Your task to perform on an android device: stop showing notifications on the lock screen Image 0: 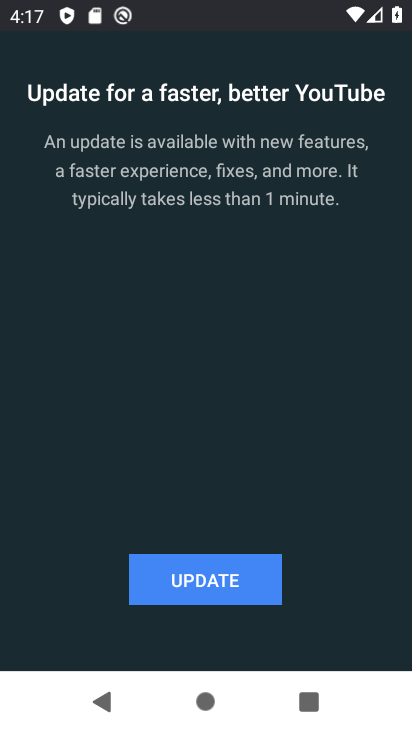
Step 0: press home button
Your task to perform on an android device: stop showing notifications on the lock screen Image 1: 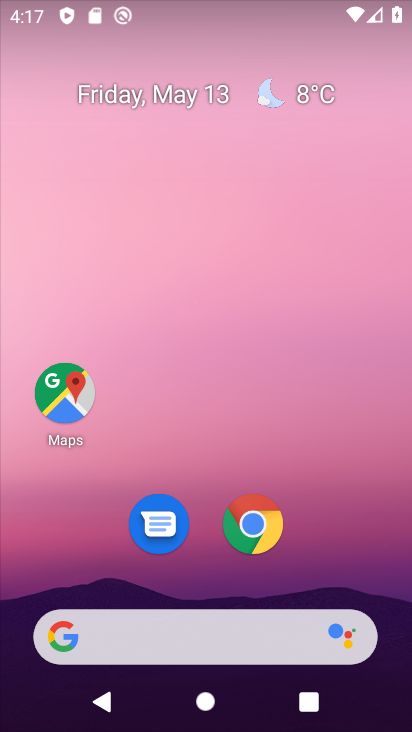
Step 1: drag from (291, 462) to (245, 9)
Your task to perform on an android device: stop showing notifications on the lock screen Image 2: 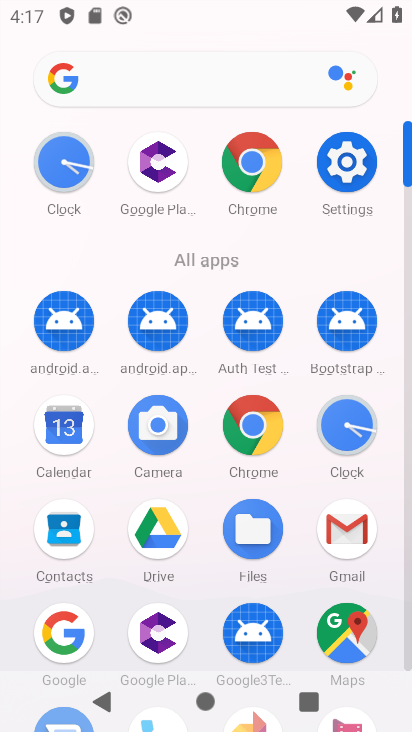
Step 2: click (343, 169)
Your task to perform on an android device: stop showing notifications on the lock screen Image 3: 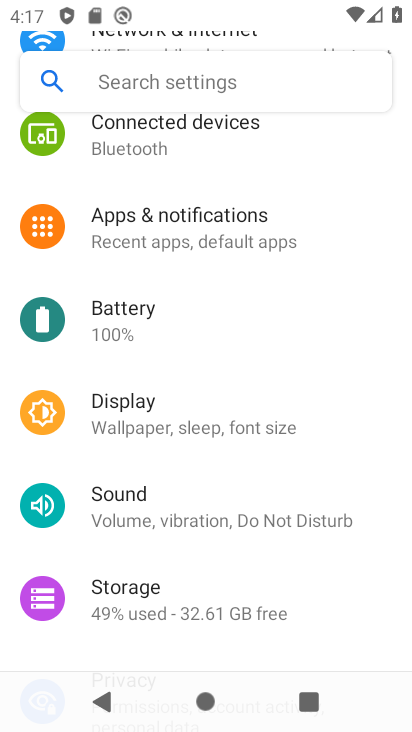
Step 3: click (235, 234)
Your task to perform on an android device: stop showing notifications on the lock screen Image 4: 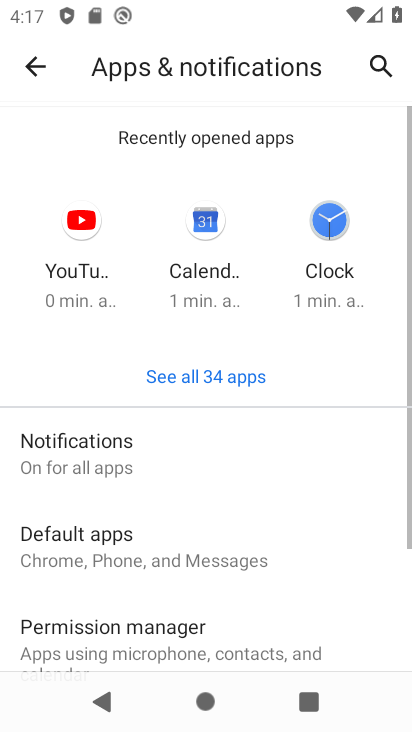
Step 4: click (222, 439)
Your task to perform on an android device: stop showing notifications on the lock screen Image 5: 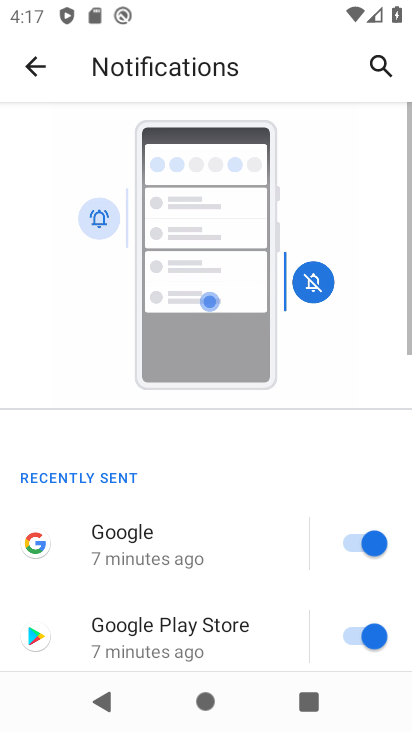
Step 5: drag from (231, 510) to (235, 140)
Your task to perform on an android device: stop showing notifications on the lock screen Image 6: 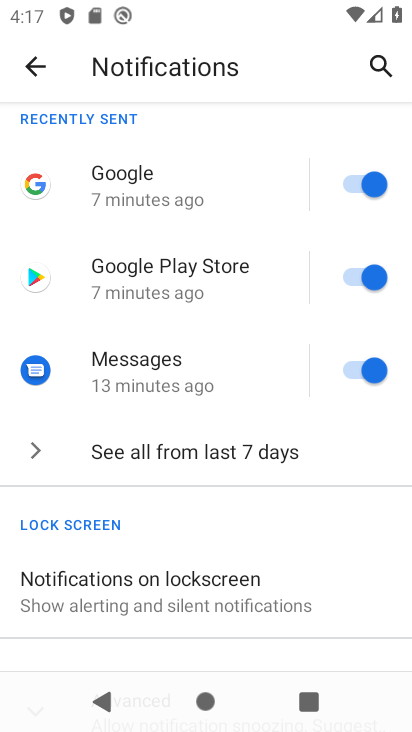
Step 6: click (209, 594)
Your task to perform on an android device: stop showing notifications on the lock screen Image 7: 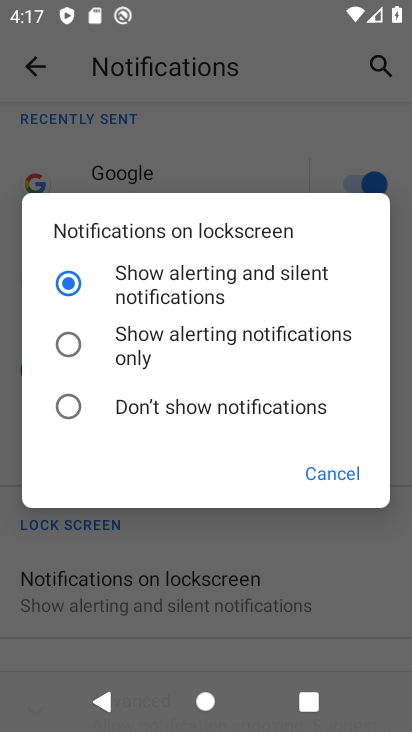
Step 7: click (67, 408)
Your task to perform on an android device: stop showing notifications on the lock screen Image 8: 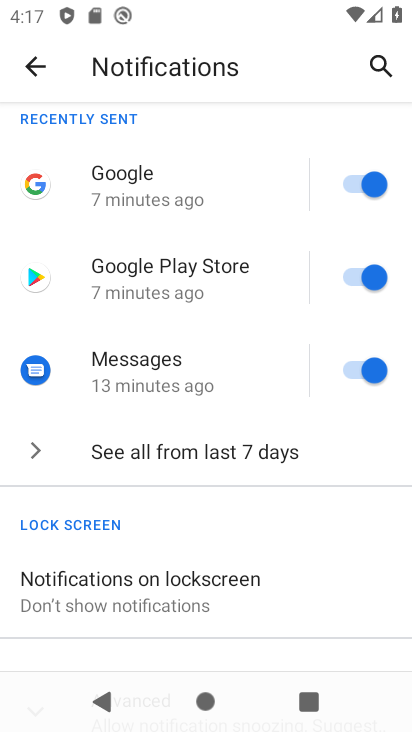
Step 8: task complete